Your task to perform on an android device: toggle notifications settings in the gmail app Image 0: 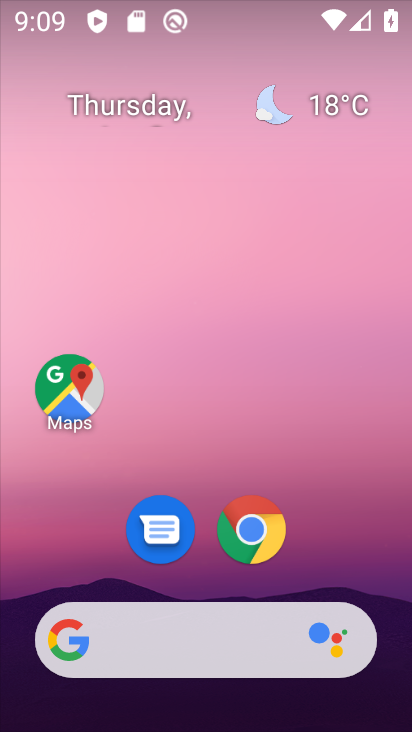
Step 0: drag from (399, 592) to (402, 144)
Your task to perform on an android device: toggle notifications settings in the gmail app Image 1: 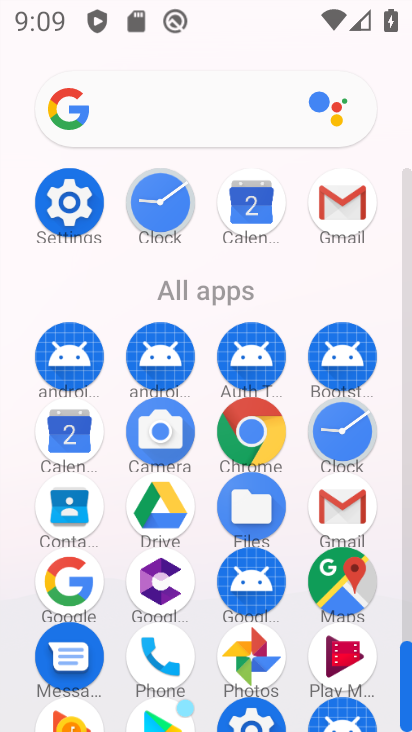
Step 1: click (346, 199)
Your task to perform on an android device: toggle notifications settings in the gmail app Image 2: 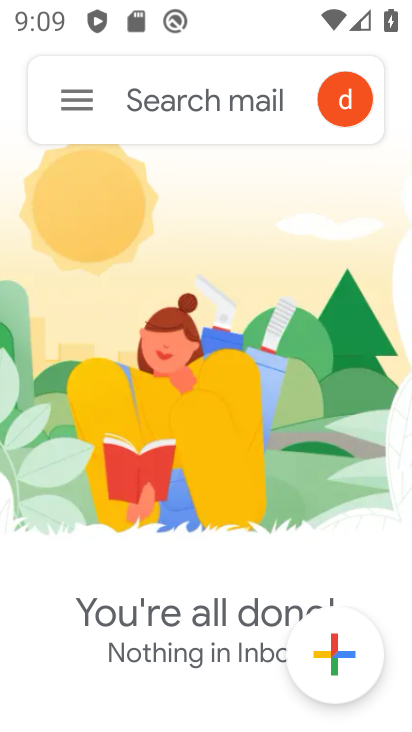
Step 2: click (79, 93)
Your task to perform on an android device: toggle notifications settings in the gmail app Image 3: 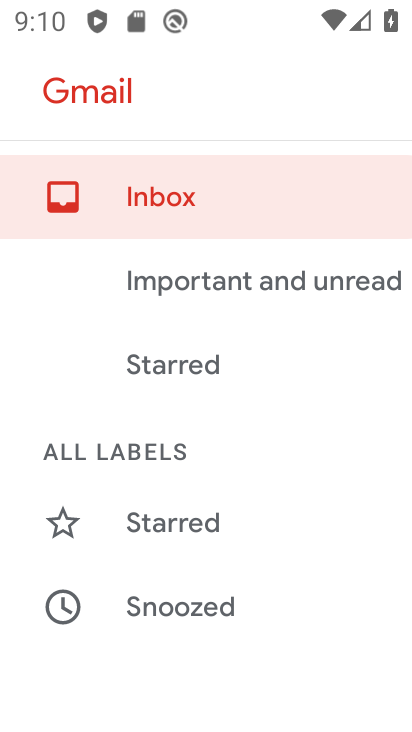
Step 3: drag from (297, 645) to (303, 241)
Your task to perform on an android device: toggle notifications settings in the gmail app Image 4: 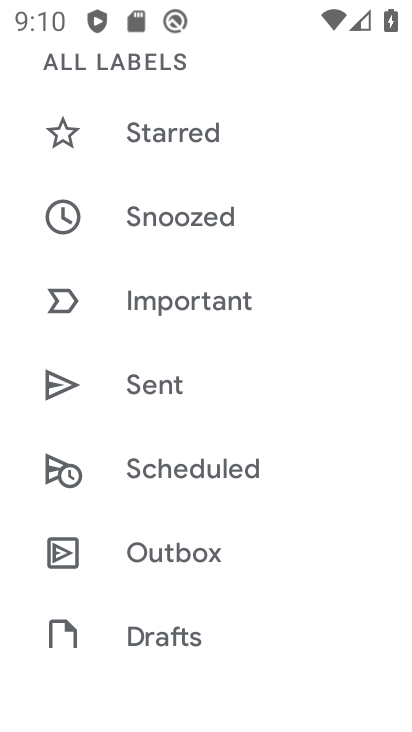
Step 4: drag from (267, 637) to (310, 201)
Your task to perform on an android device: toggle notifications settings in the gmail app Image 5: 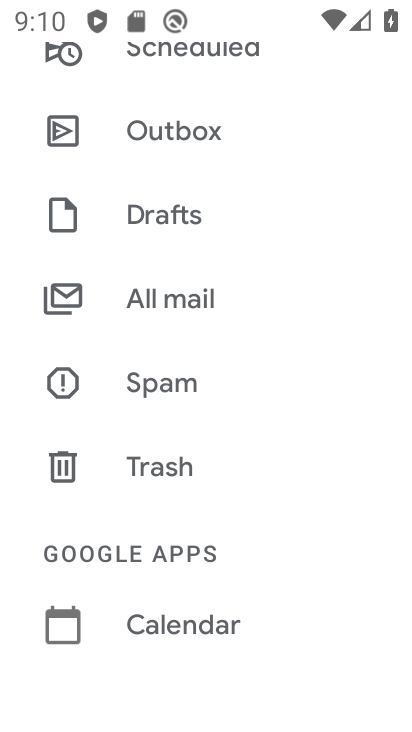
Step 5: drag from (296, 561) to (315, 175)
Your task to perform on an android device: toggle notifications settings in the gmail app Image 6: 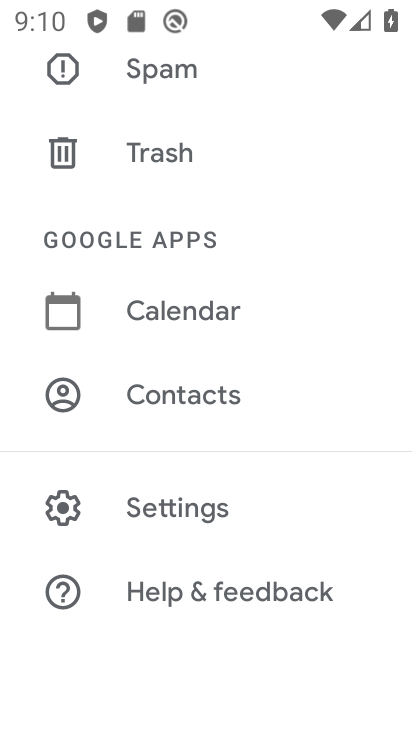
Step 6: click (167, 507)
Your task to perform on an android device: toggle notifications settings in the gmail app Image 7: 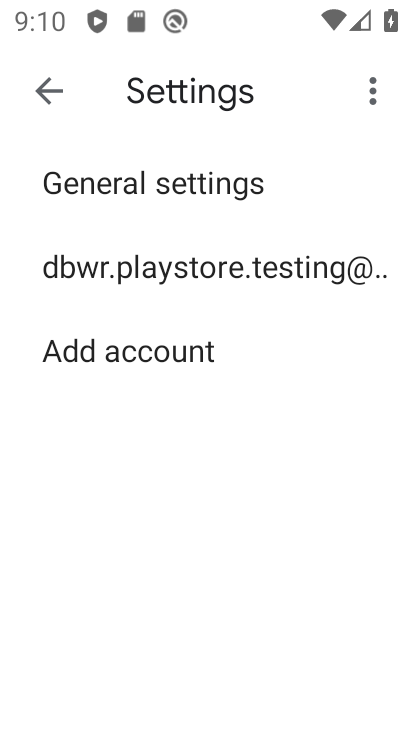
Step 7: click (80, 189)
Your task to perform on an android device: toggle notifications settings in the gmail app Image 8: 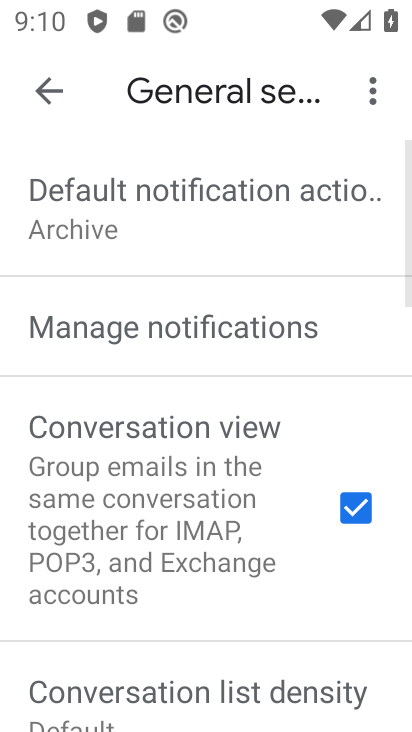
Step 8: click (260, 338)
Your task to perform on an android device: toggle notifications settings in the gmail app Image 9: 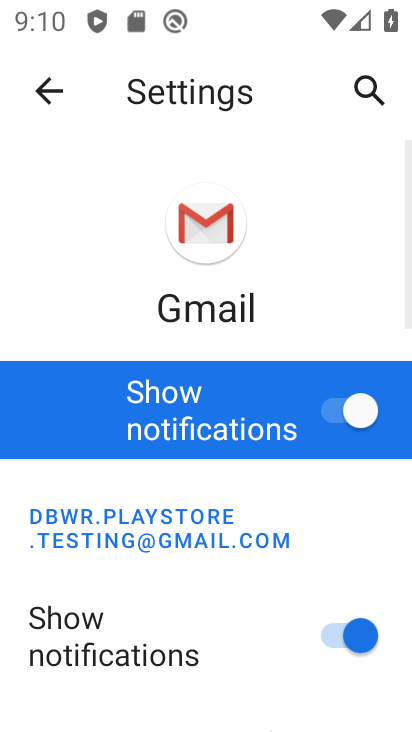
Step 9: click (334, 410)
Your task to perform on an android device: toggle notifications settings in the gmail app Image 10: 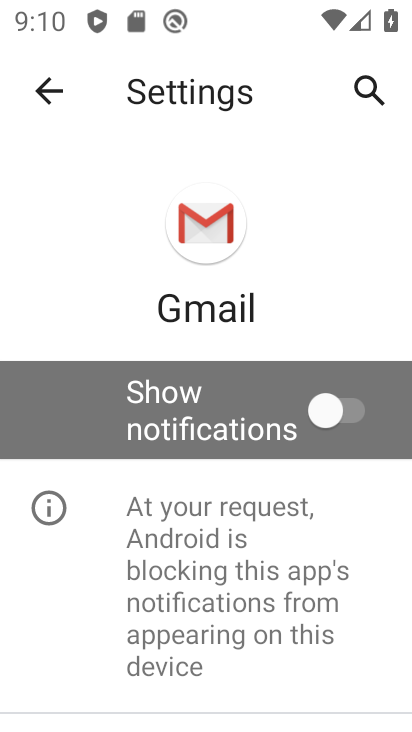
Step 10: task complete